Your task to perform on an android device: Show me recent news Image 0: 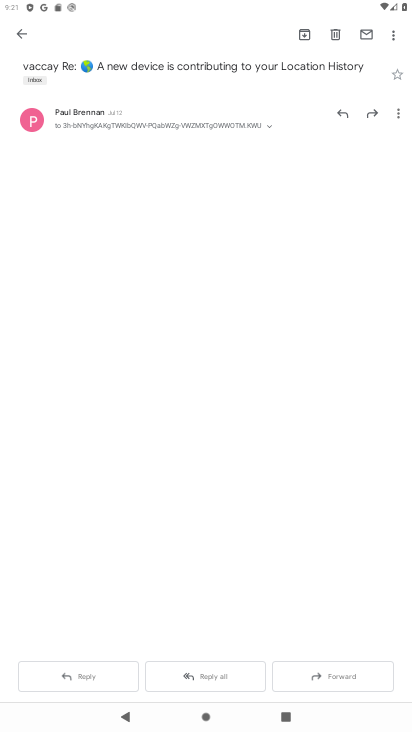
Step 0: press home button
Your task to perform on an android device: Show me recent news Image 1: 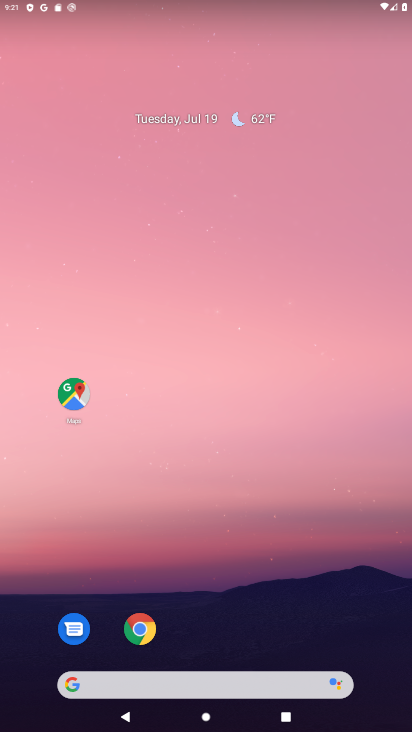
Step 1: click (149, 679)
Your task to perform on an android device: Show me recent news Image 2: 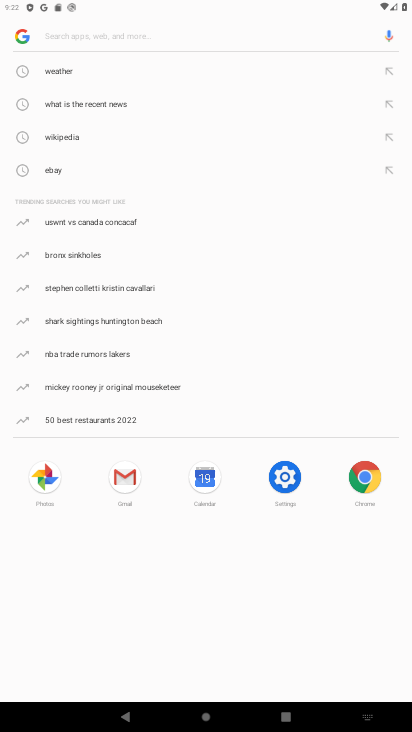
Step 2: type "recent news"
Your task to perform on an android device: Show me recent news Image 3: 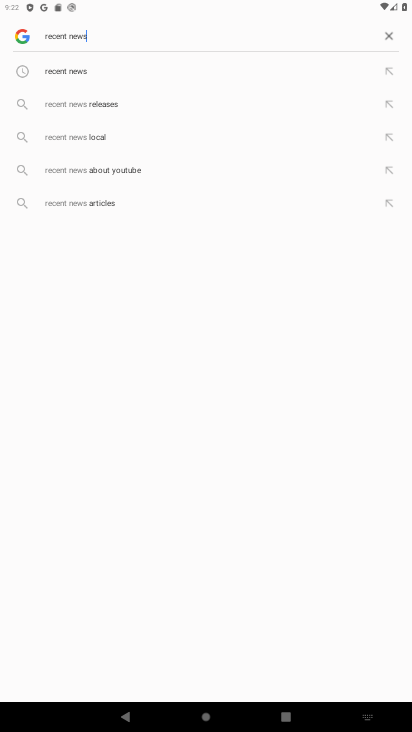
Step 3: click (81, 71)
Your task to perform on an android device: Show me recent news Image 4: 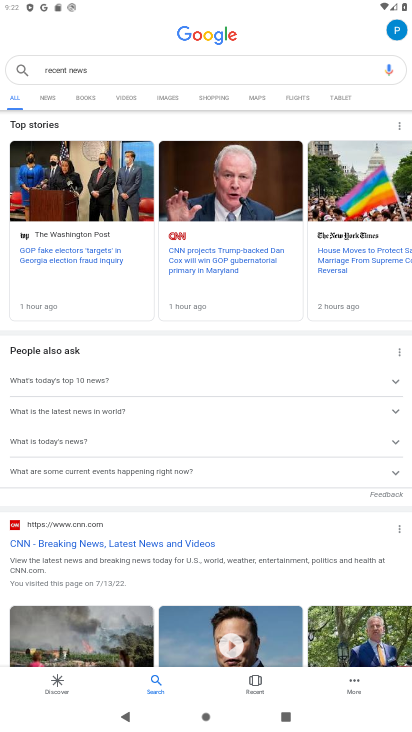
Step 4: click (50, 91)
Your task to perform on an android device: Show me recent news Image 5: 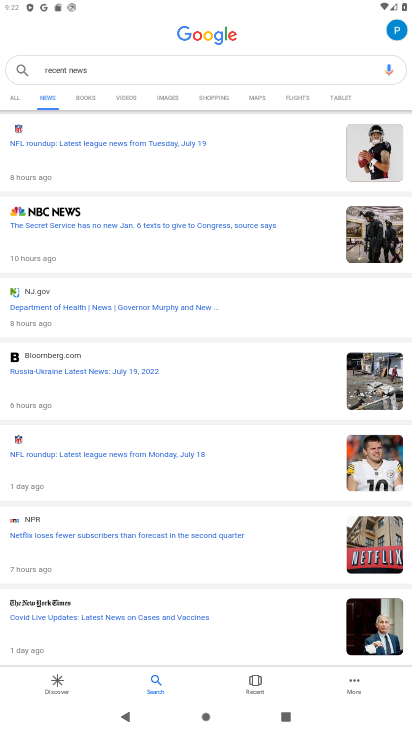
Step 5: task complete